Your task to perform on an android device: turn on improve location accuracy Image 0: 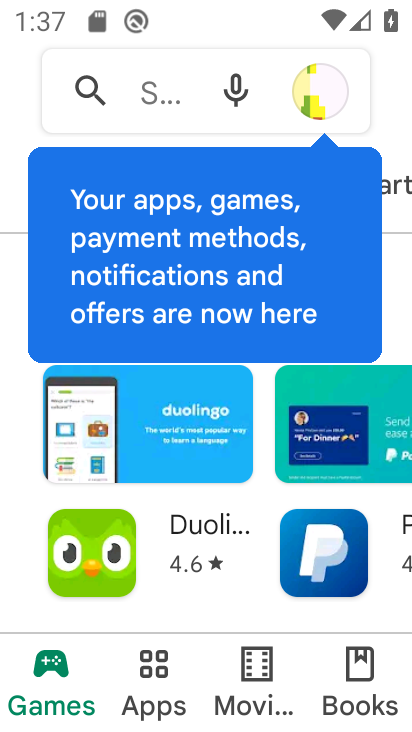
Step 0: press home button
Your task to perform on an android device: turn on improve location accuracy Image 1: 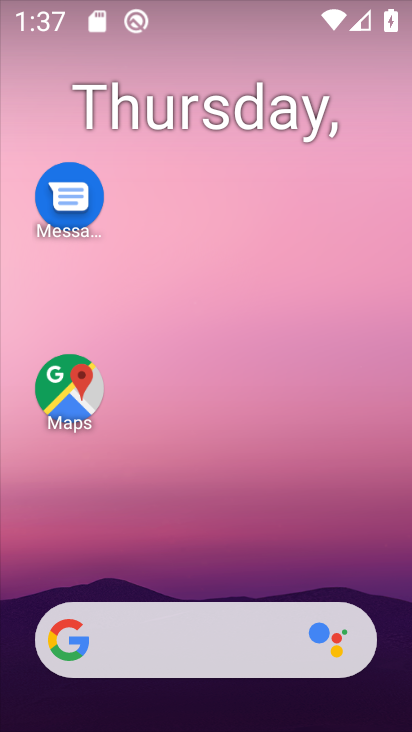
Step 1: drag from (147, 586) to (235, 151)
Your task to perform on an android device: turn on improve location accuracy Image 2: 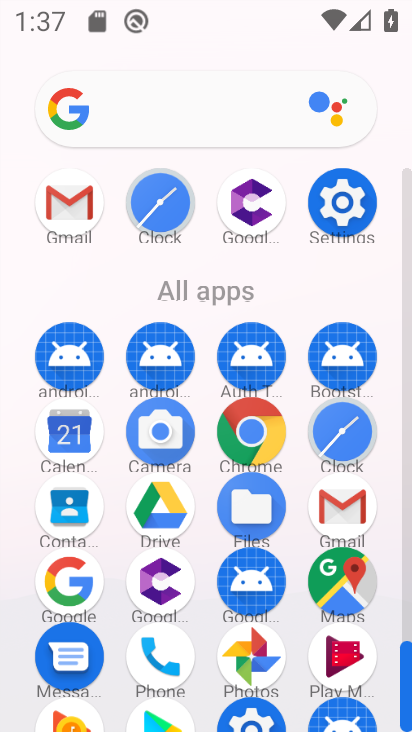
Step 2: click (340, 193)
Your task to perform on an android device: turn on improve location accuracy Image 3: 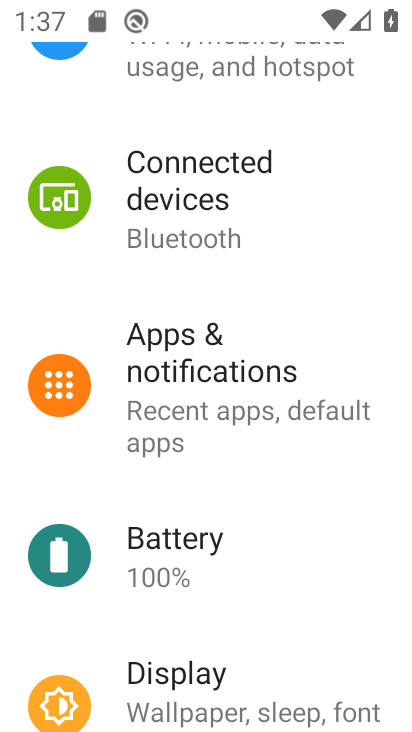
Step 3: drag from (226, 583) to (280, 196)
Your task to perform on an android device: turn on improve location accuracy Image 4: 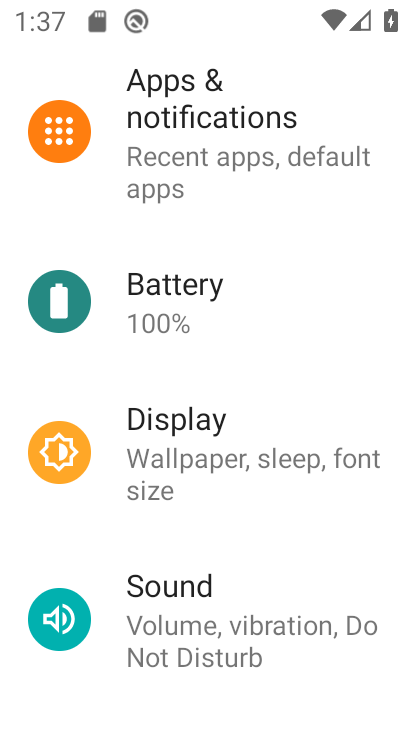
Step 4: drag from (215, 521) to (256, 268)
Your task to perform on an android device: turn on improve location accuracy Image 5: 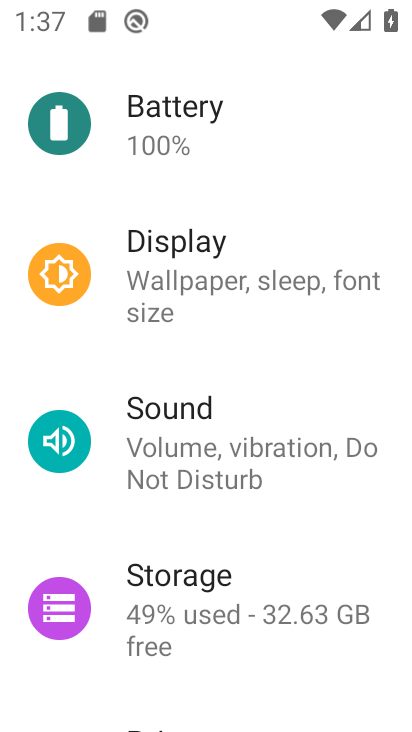
Step 5: drag from (158, 682) to (254, 336)
Your task to perform on an android device: turn on improve location accuracy Image 6: 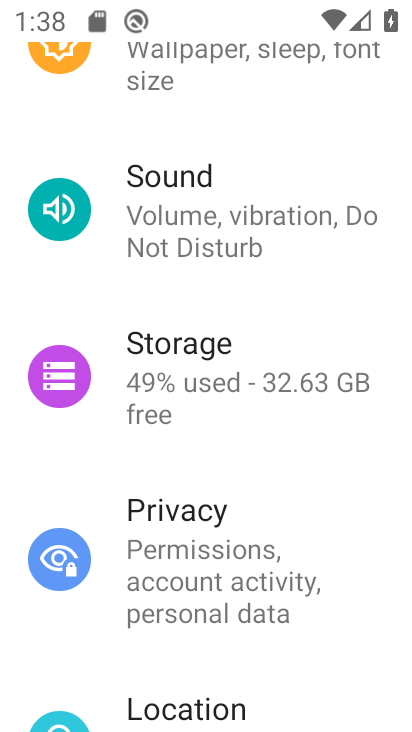
Step 6: drag from (193, 626) to (241, 352)
Your task to perform on an android device: turn on improve location accuracy Image 7: 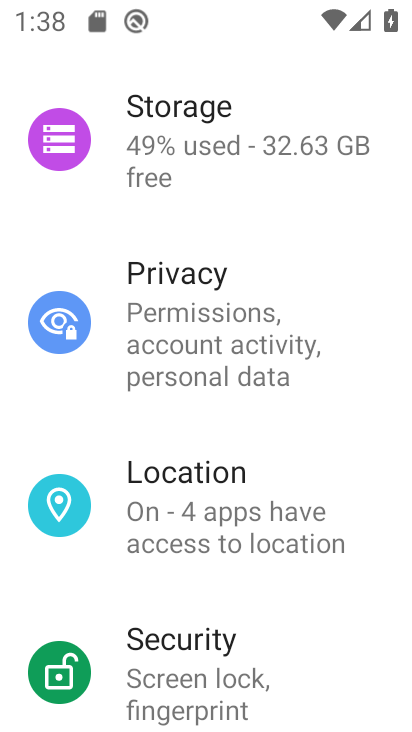
Step 7: click (187, 488)
Your task to perform on an android device: turn on improve location accuracy Image 8: 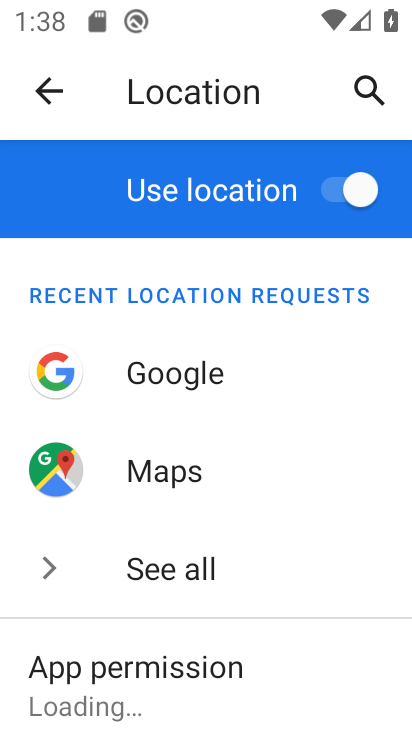
Step 8: drag from (259, 608) to (282, 347)
Your task to perform on an android device: turn on improve location accuracy Image 9: 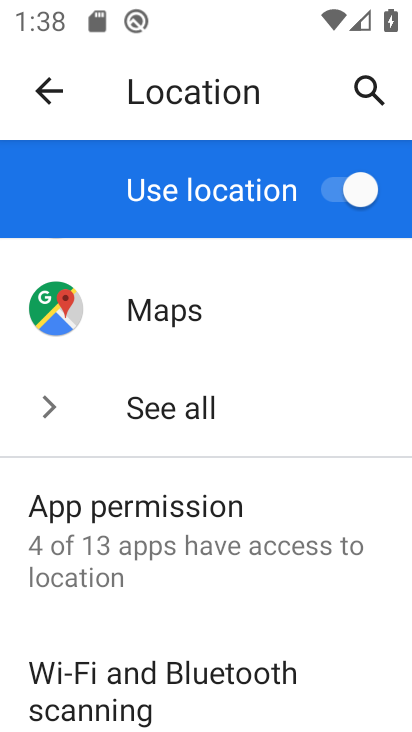
Step 9: drag from (186, 721) to (256, 381)
Your task to perform on an android device: turn on improve location accuracy Image 10: 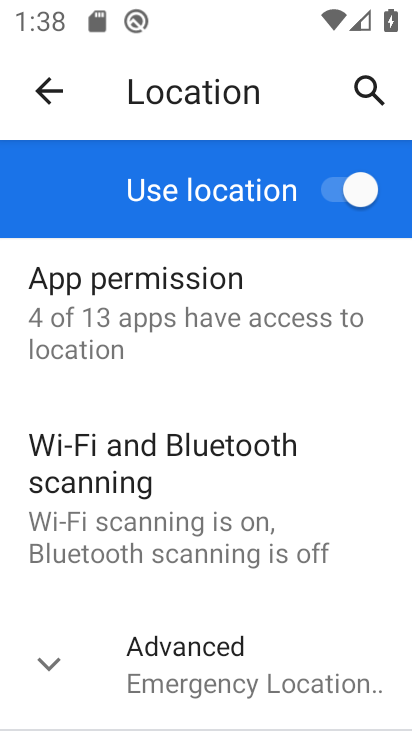
Step 10: drag from (174, 613) to (265, 305)
Your task to perform on an android device: turn on improve location accuracy Image 11: 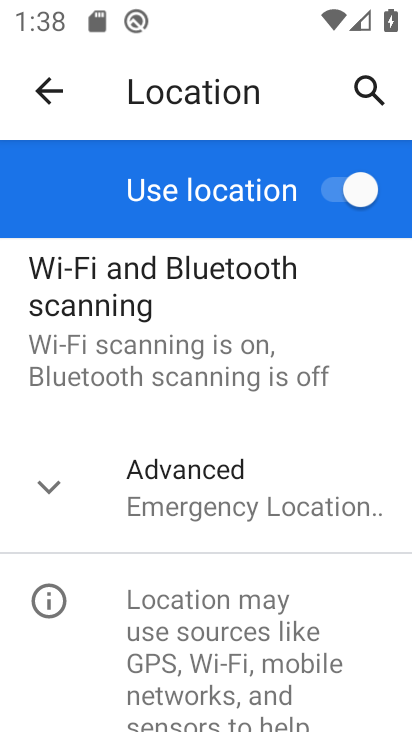
Step 11: click (44, 482)
Your task to perform on an android device: turn on improve location accuracy Image 12: 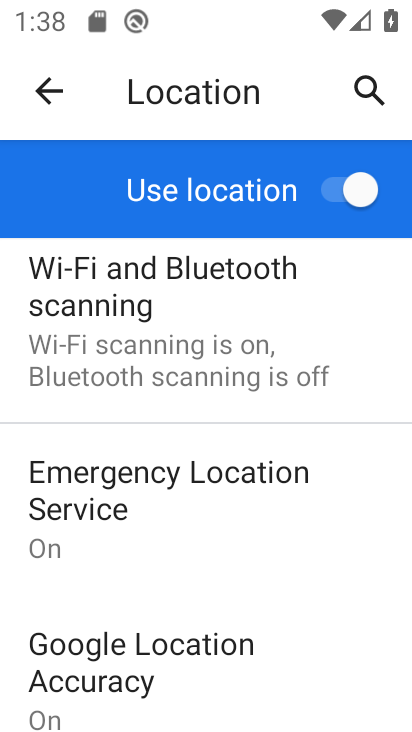
Step 12: task complete